Your task to perform on an android device: open app "Adobe Express: Graphic Design" Image 0: 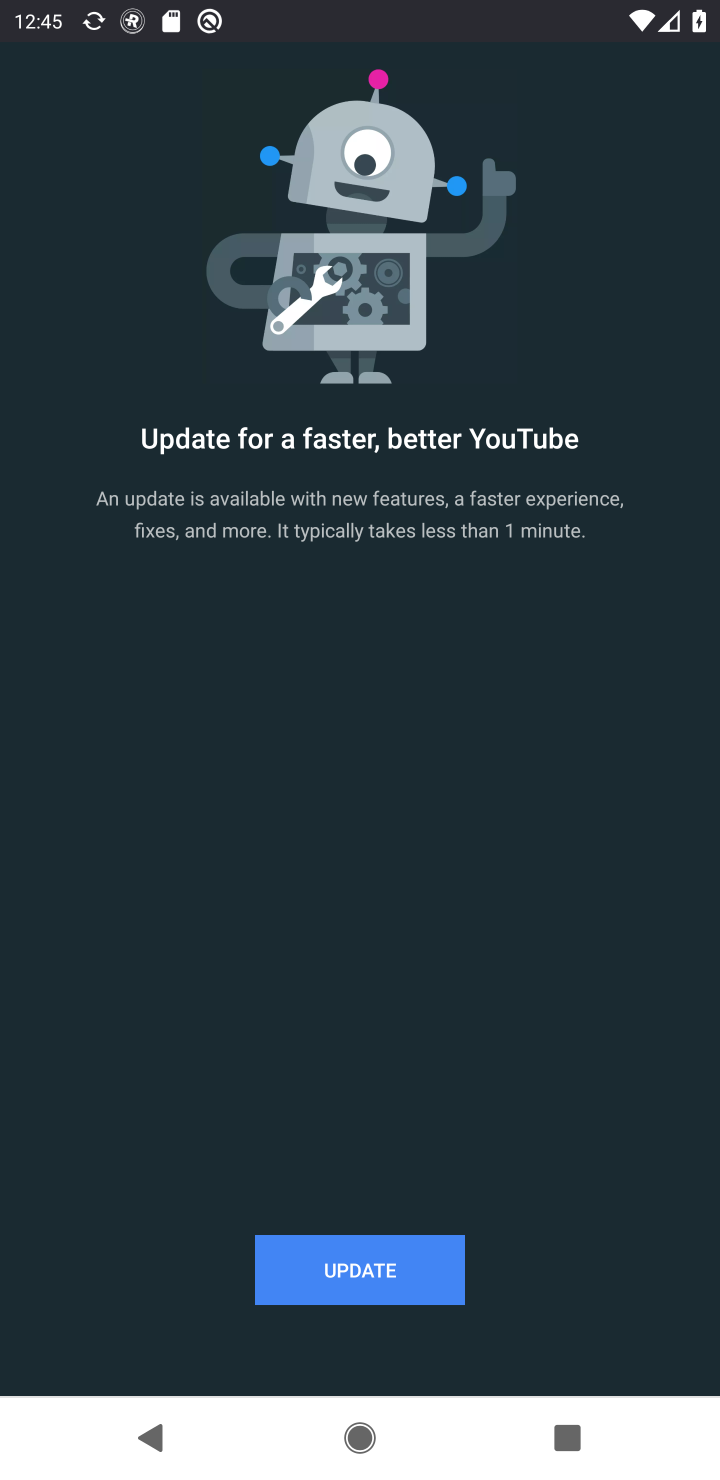
Step 0: press home button
Your task to perform on an android device: open app "Adobe Express: Graphic Design" Image 1: 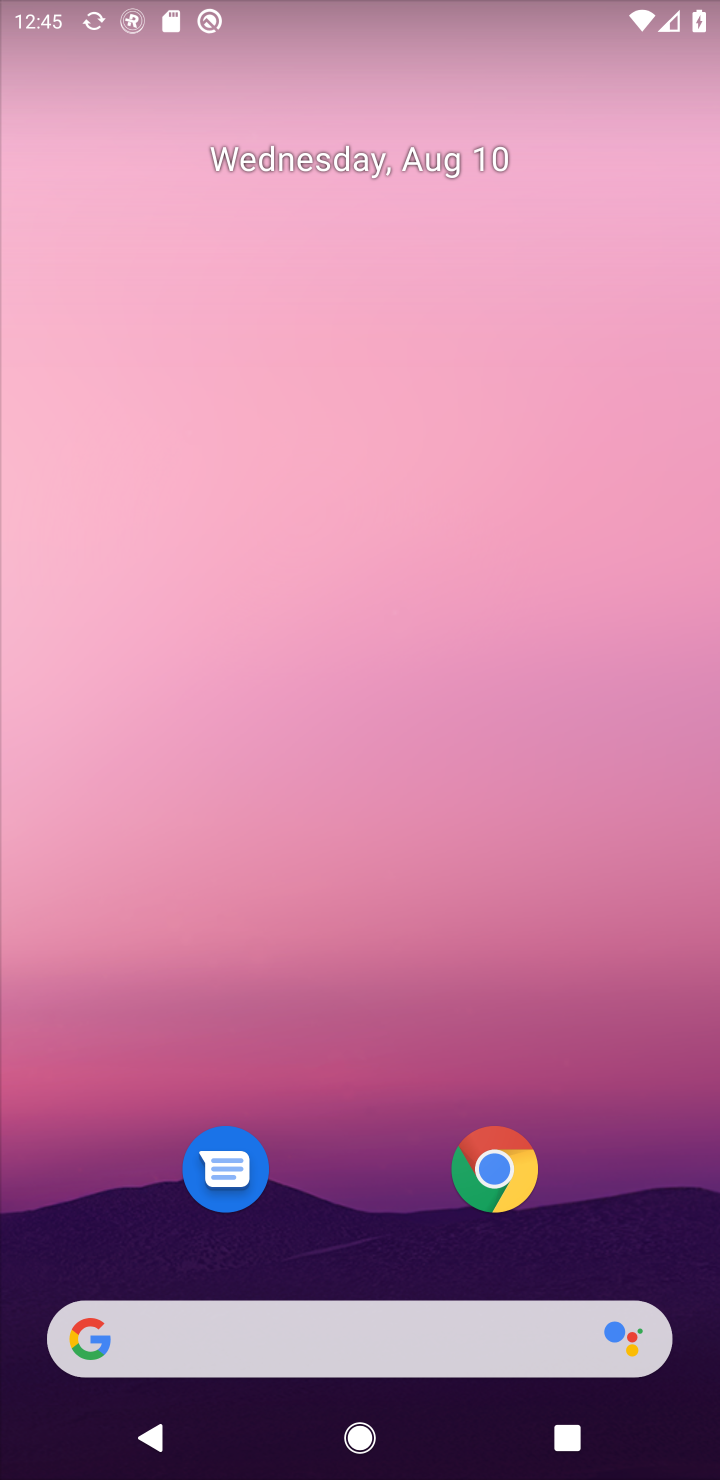
Step 1: drag from (627, 1233) to (583, 146)
Your task to perform on an android device: open app "Adobe Express: Graphic Design" Image 2: 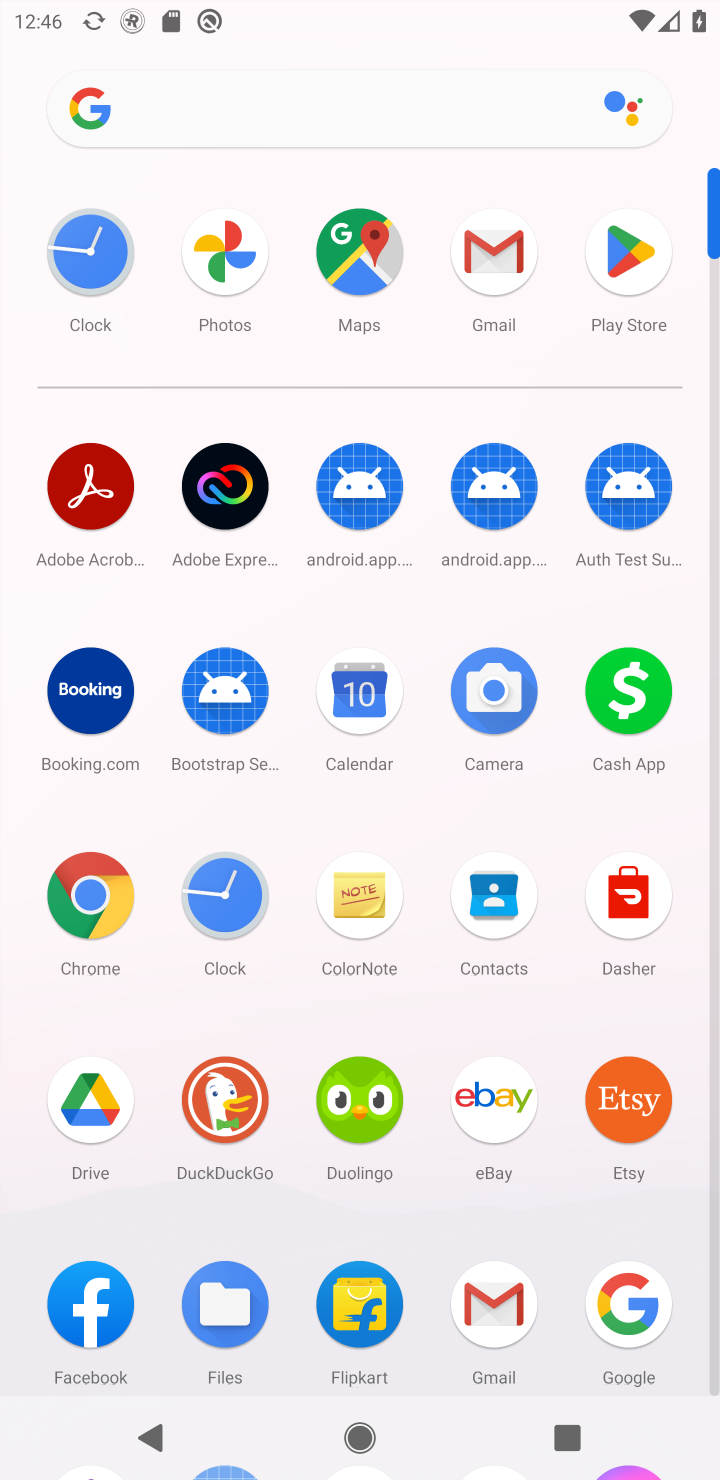
Step 2: click (614, 259)
Your task to perform on an android device: open app "Adobe Express: Graphic Design" Image 3: 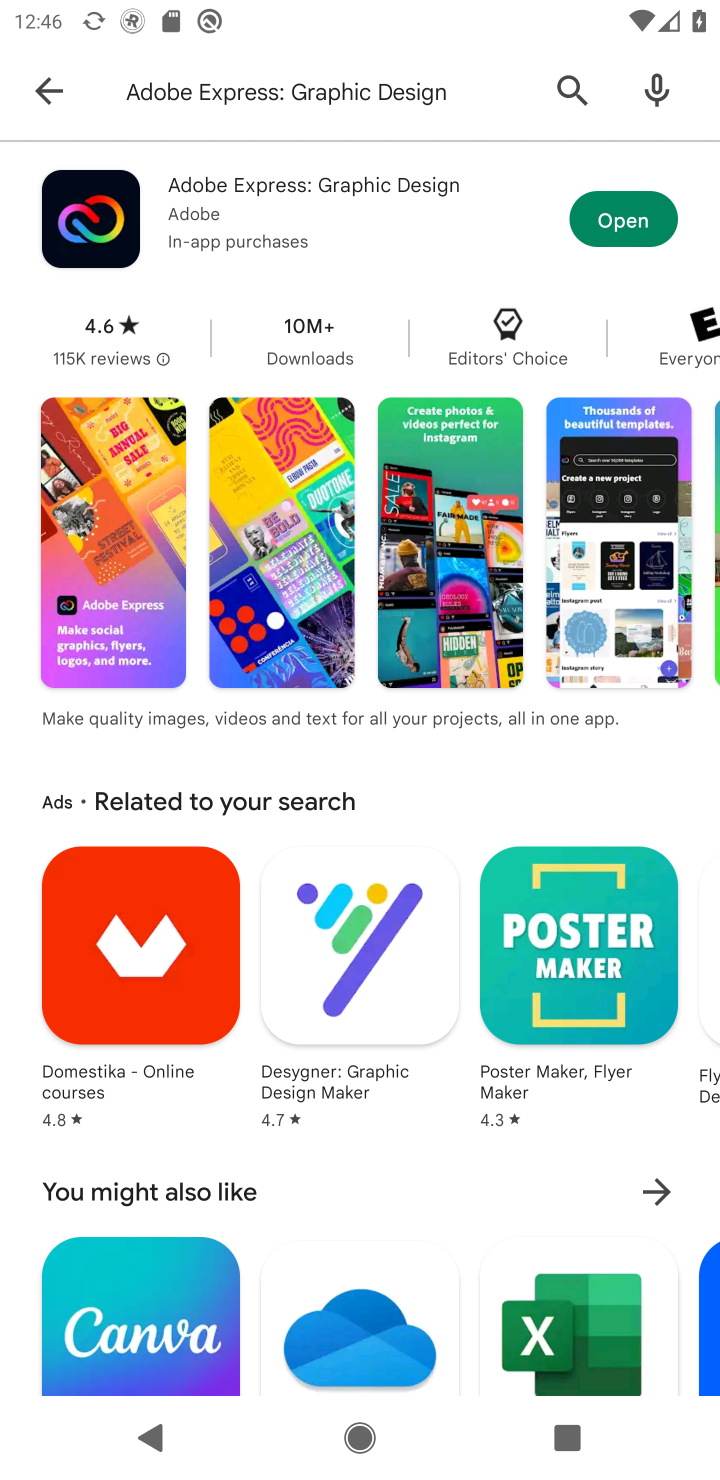
Step 3: click (577, 87)
Your task to perform on an android device: open app "Adobe Express: Graphic Design" Image 4: 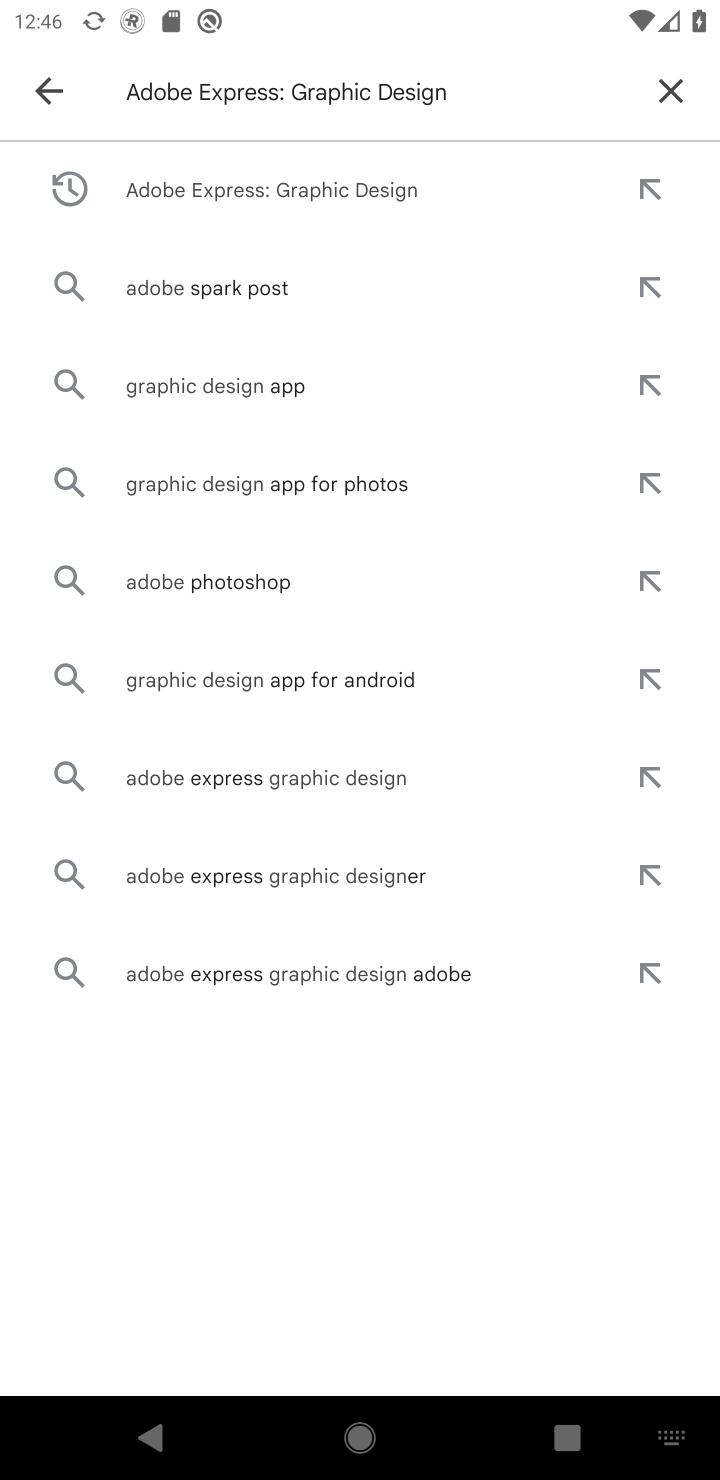
Step 4: click (356, 185)
Your task to perform on an android device: open app "Adobe Express: Graphic Design" Image 5: 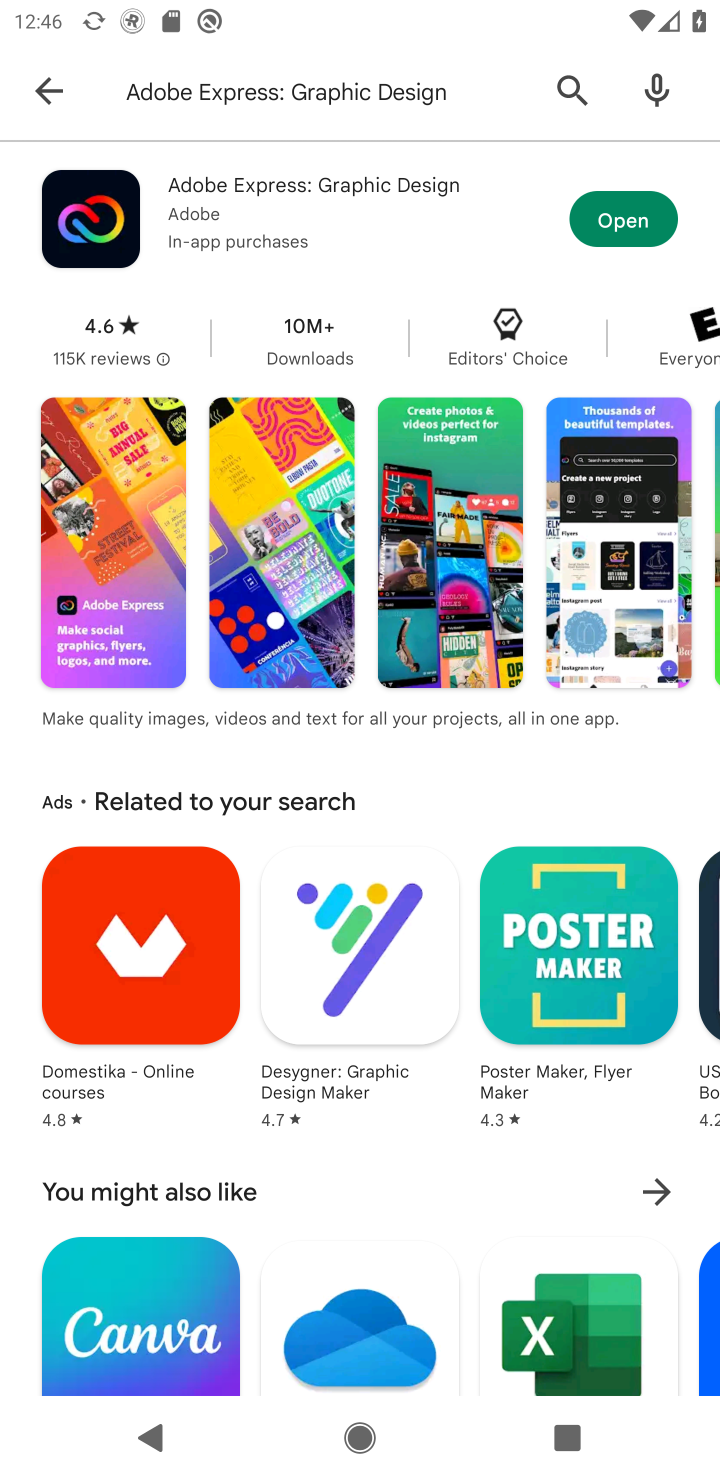
Step 5: click (629, 225)
Your task to perform on an android device: open app "Adobe Express: Graphic Design" Image 6: 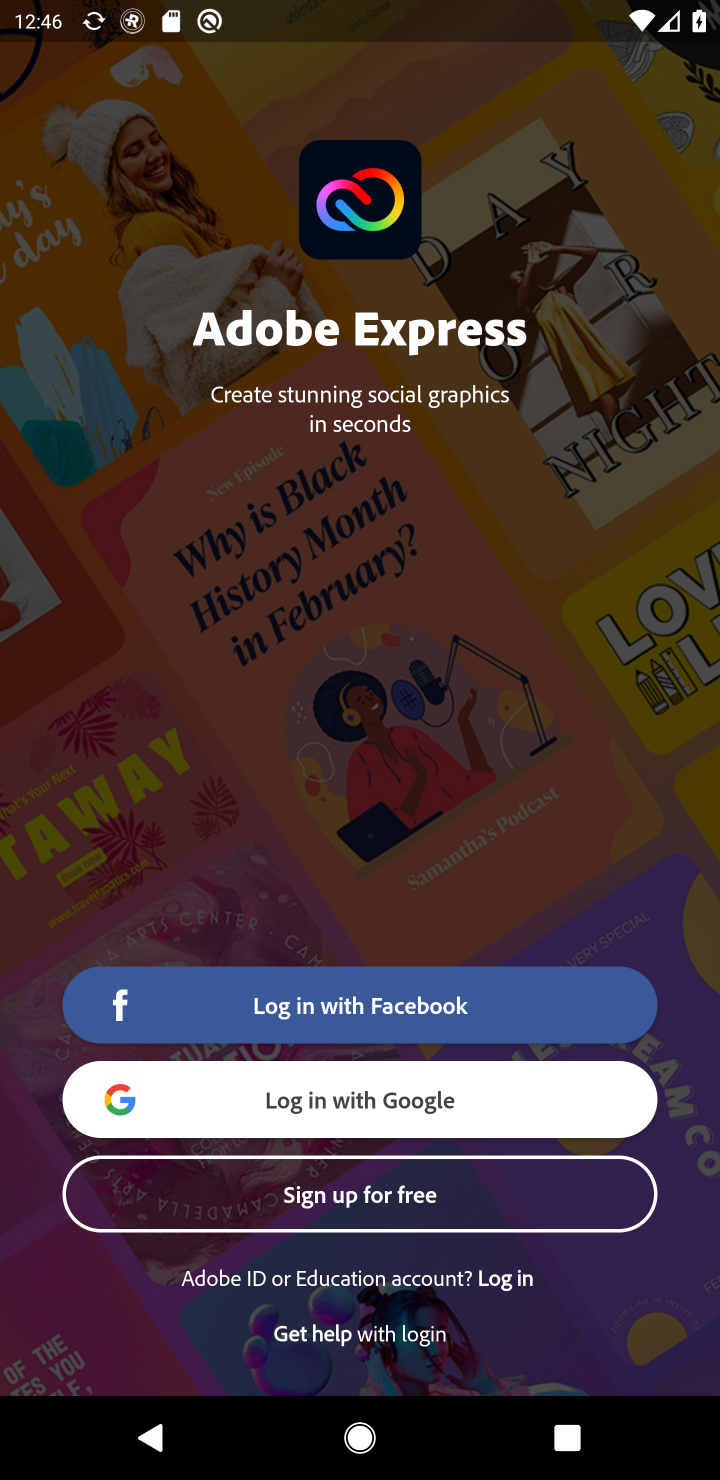
Step 6: task complete